Your task to perform on an android device: Is it going to rain tomorrow? Image 0: 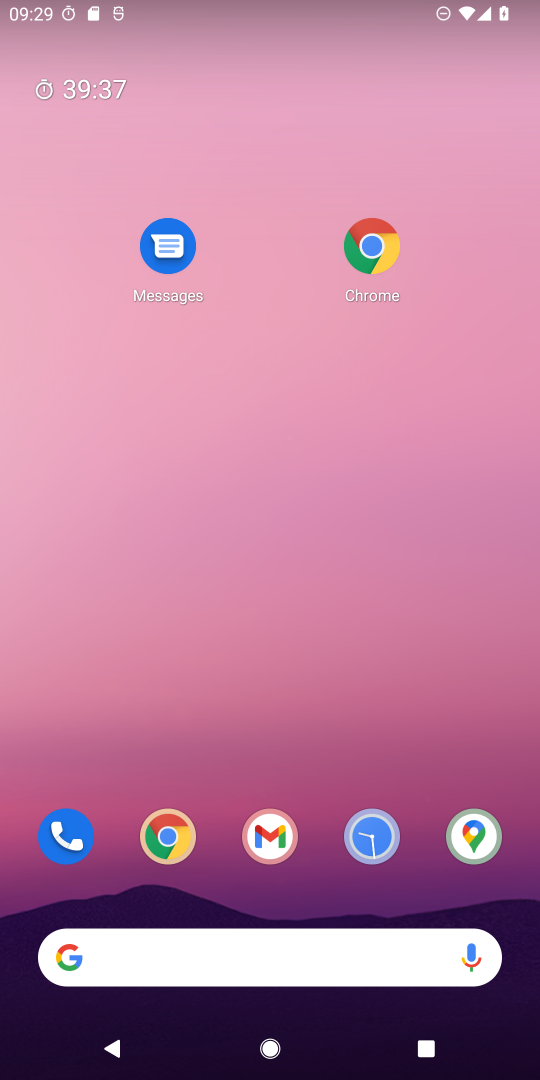
Step 0: click (377, 245)
Your task to perform on an android device: Is it going to rain tomorrow? Image 1: 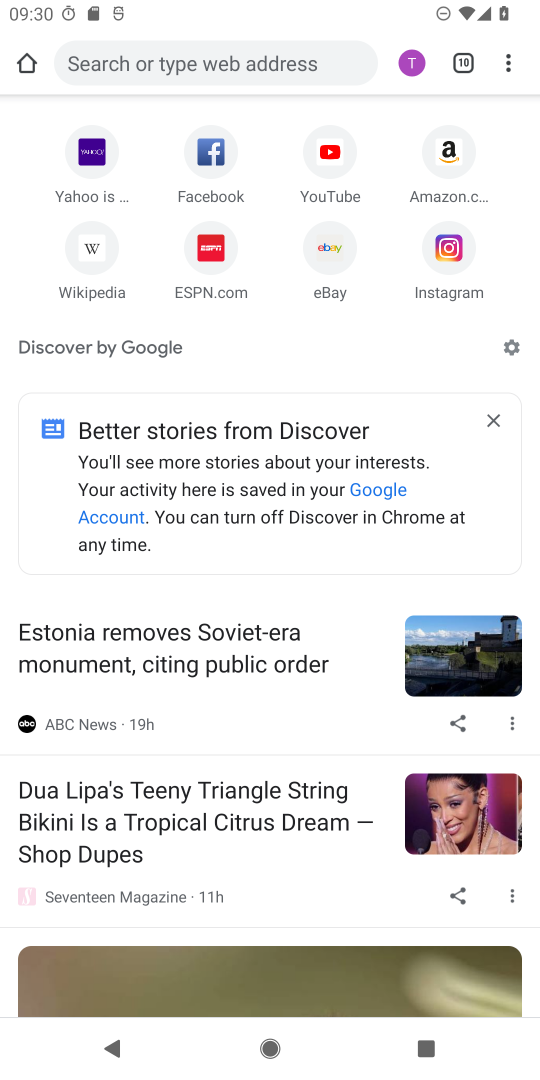
Step 1: drag from (130, 1079) to (209, 1055)
Your task to perform on an android device: Is it going to rain tomorrow? Image 2: 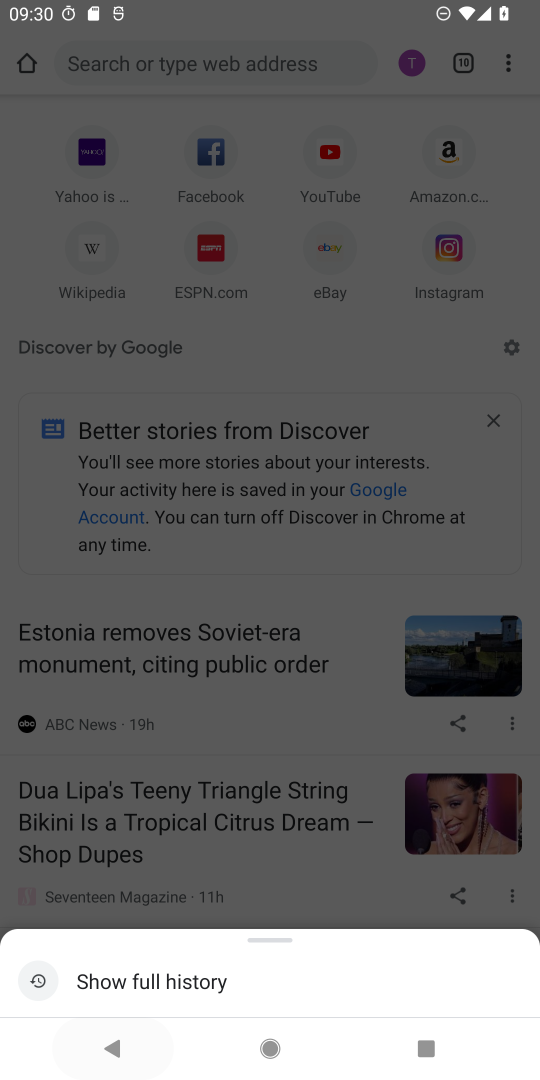
Step 2: click (414, 367)
Your task to perform on an android device: Is it going to rain tomorrow? Image 3: 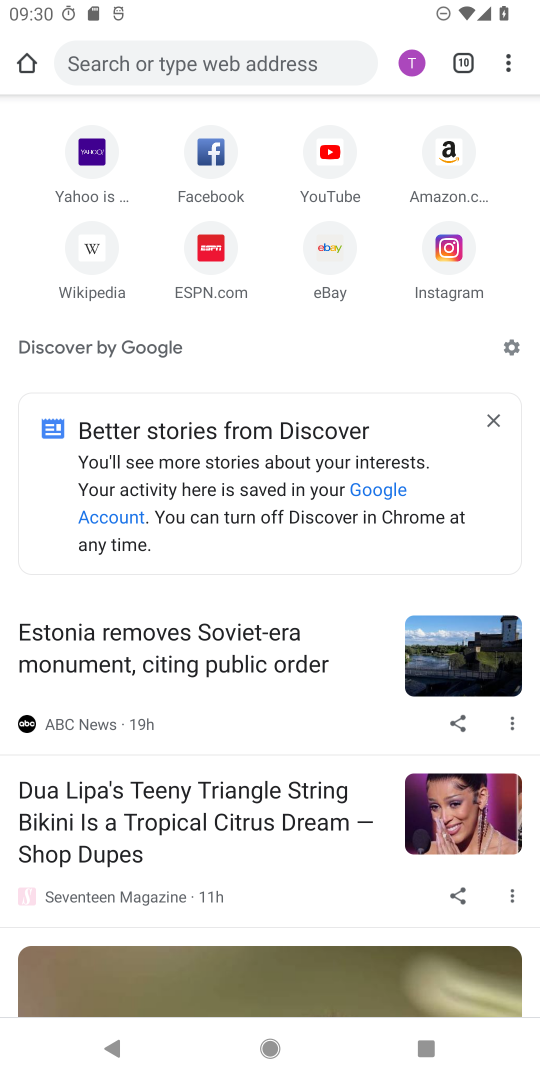
Step 3: click (179, 59)
Your task to perform on an android device: Is it going to rain tomorrow? Image 4: 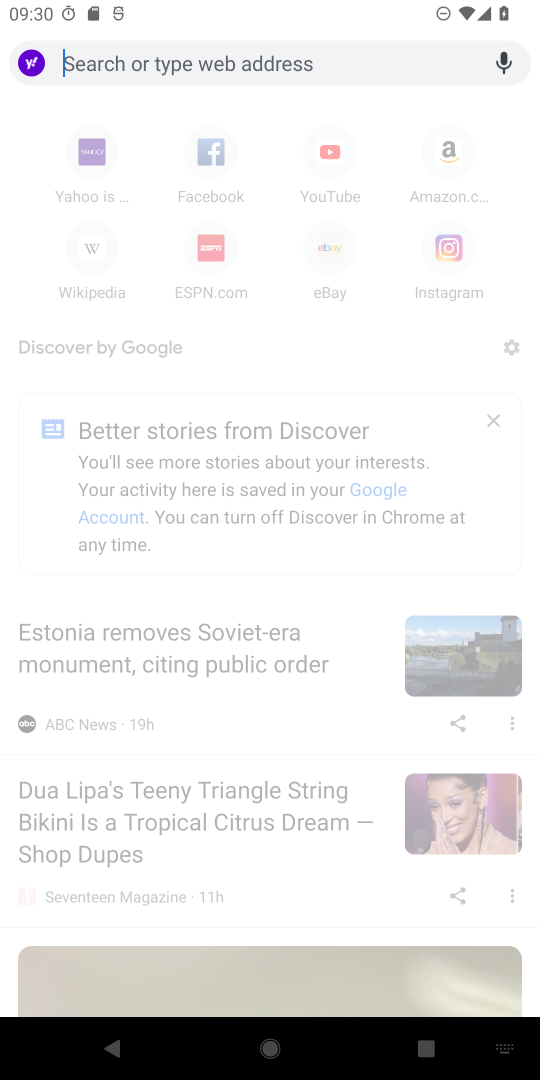
Step 4: type "Is it going to rain tomorrow? "
Your task to perform on an android device: Is it going to rain tomorrow? Image 5: 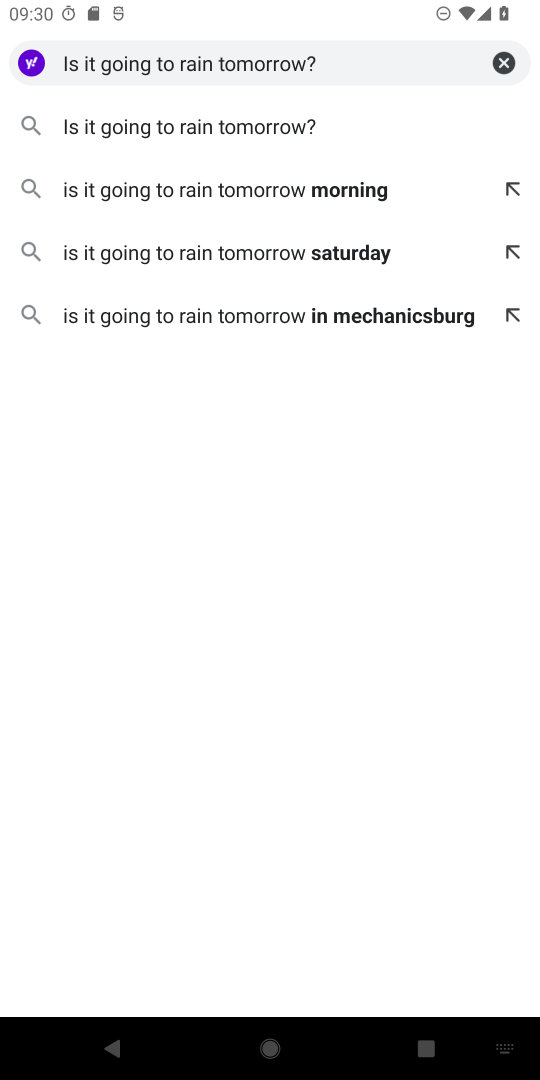
Step 5: click (264, 116)
Your task to perform on an android device: Is it going to rain tomorrow? Image 6: 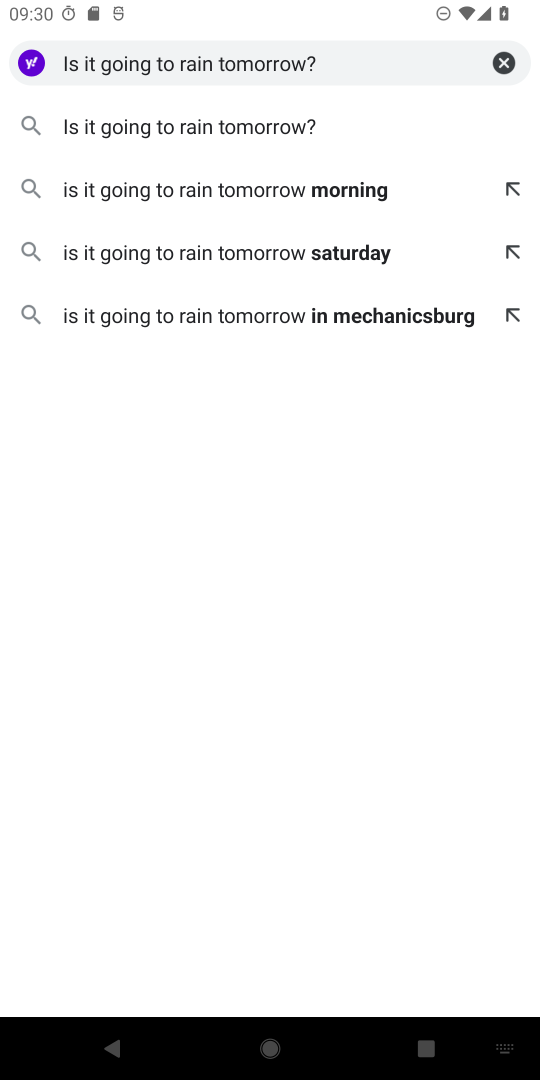
Step 6: click (235, 127)
Your task to perform on an android device: Is it going to rain tomorrow? Image 7: 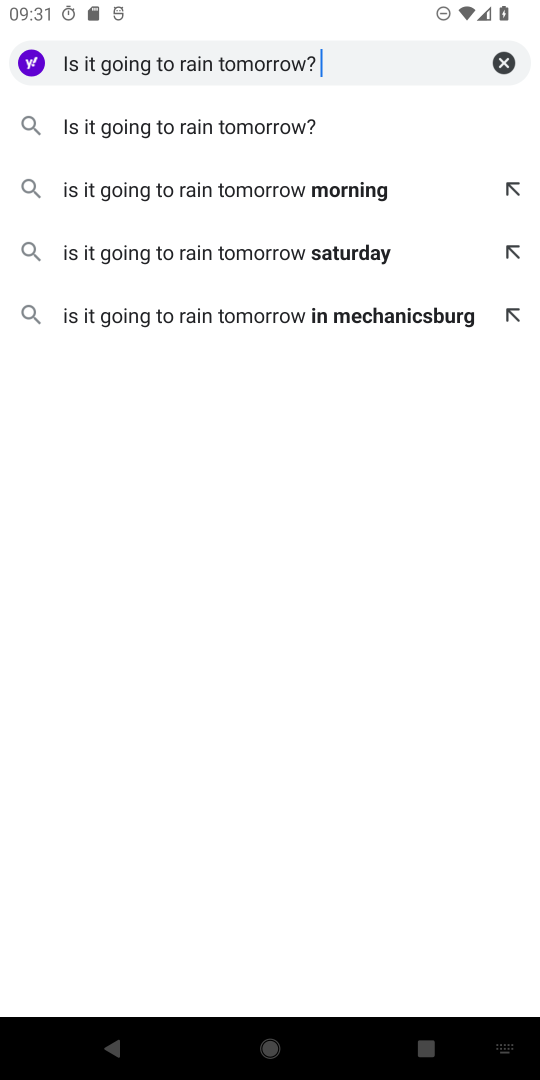
Step 7: click (165, 128)
Your task to perform on an android device: Is it going to rain tomorrow? Image 8: 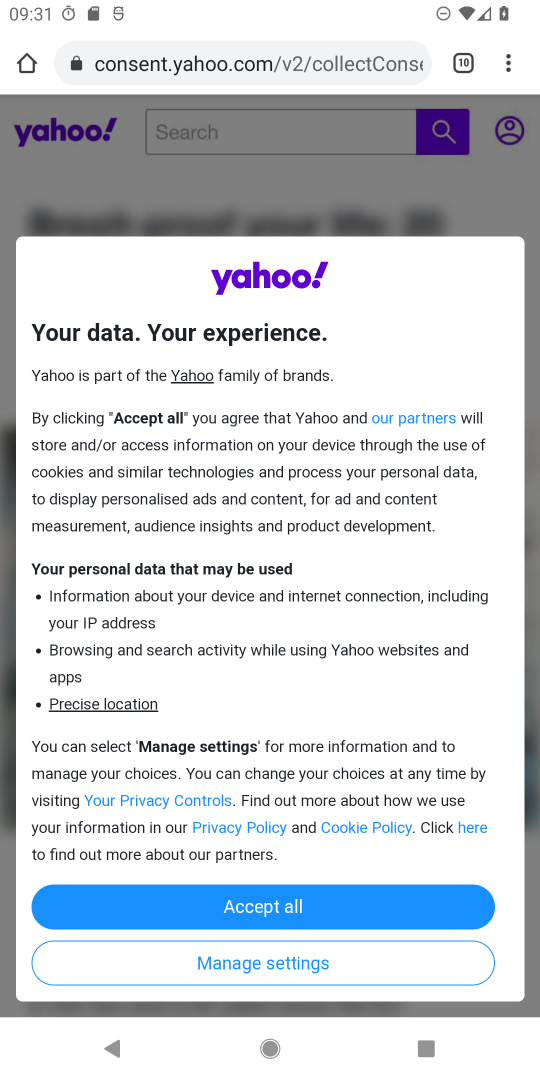
Step 8: task complete